Your task to perform on an android device: remove spam from my inbox in the gmail app Image 0: 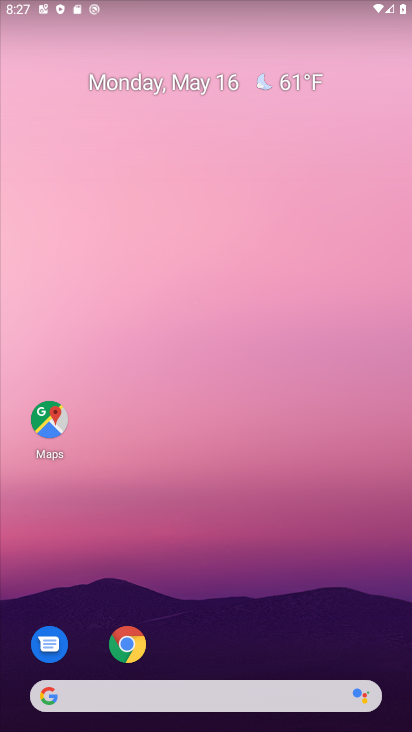
Step 0: drag from (222, 632) to (220, 167)
Your task to perform on an android device: remove spam from my inbox in the gmail app Image 1: 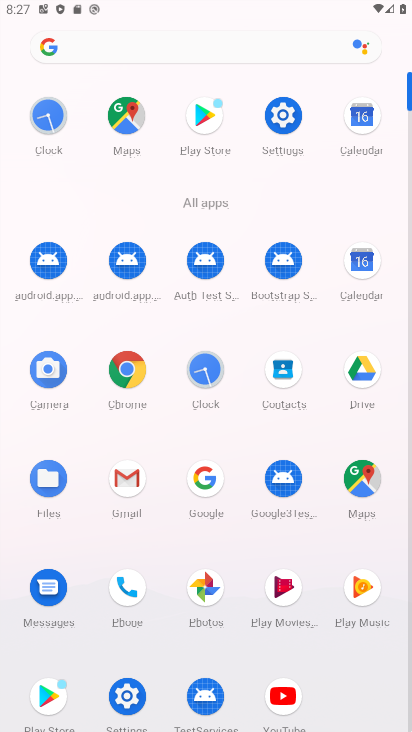
Step 1: click (124, 478)
Your task to perform on an android device: remove spam from my inbox in the gmail app Image 2: 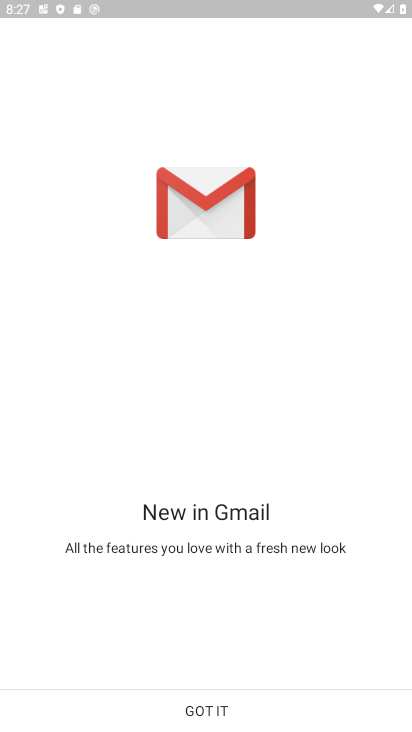
Step 2: click (201, 697)
Your task to perform on an android device: remove spam from my inbox in the gmail app Image 3: 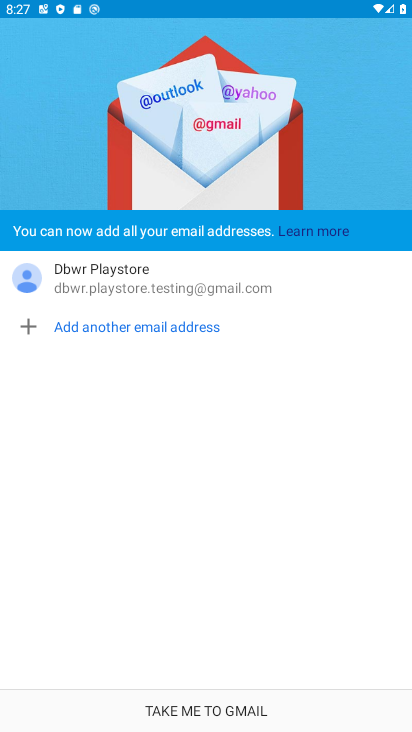
Step 3: click (199, 704)
Your task to perform on an android device: remove spam from my inbox in the gmail app Image 4: 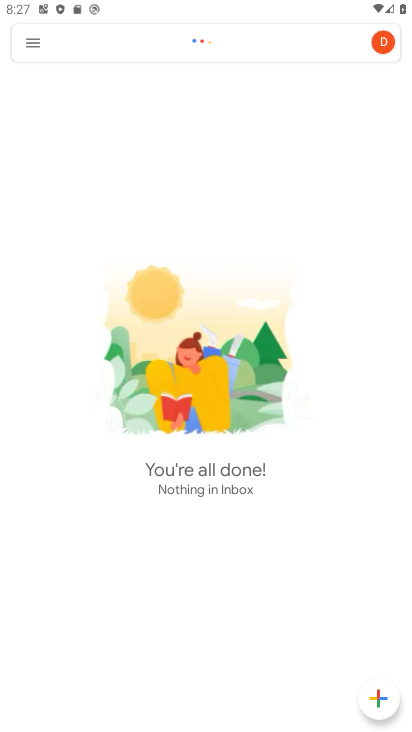
Step 4: click (35, 43)
Your task to perform on an android device: remove spam from my inbox in the gmail app Image 5: 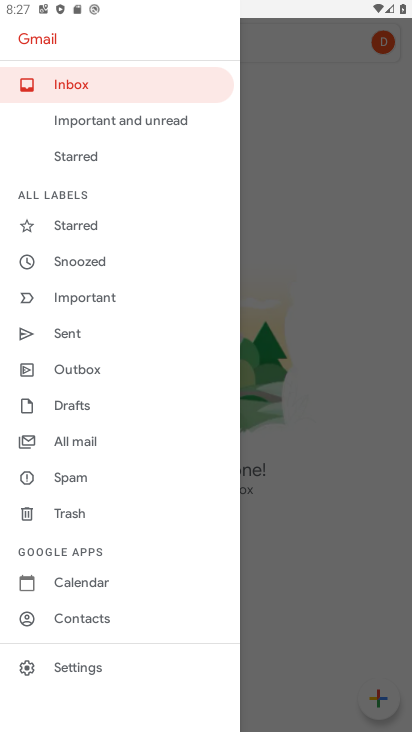
Step 5: click (334, 255)
Your task to perform on an android device: remove spam from my inbox in the gmail app Image 6: 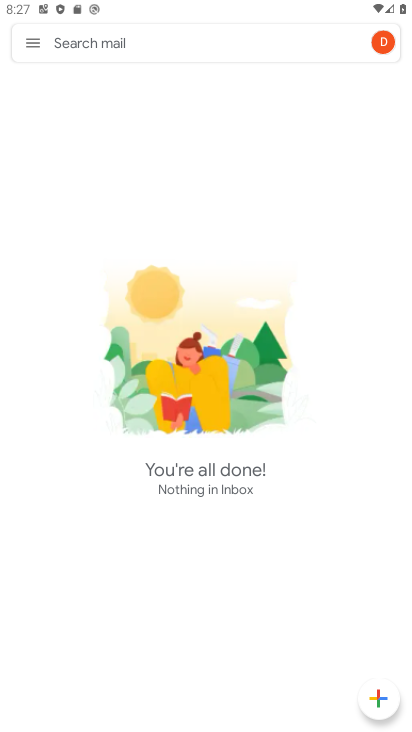
Step 6: task complete